Your task to perform on an android device: Show me productivity apps on the Play Store Image 0: 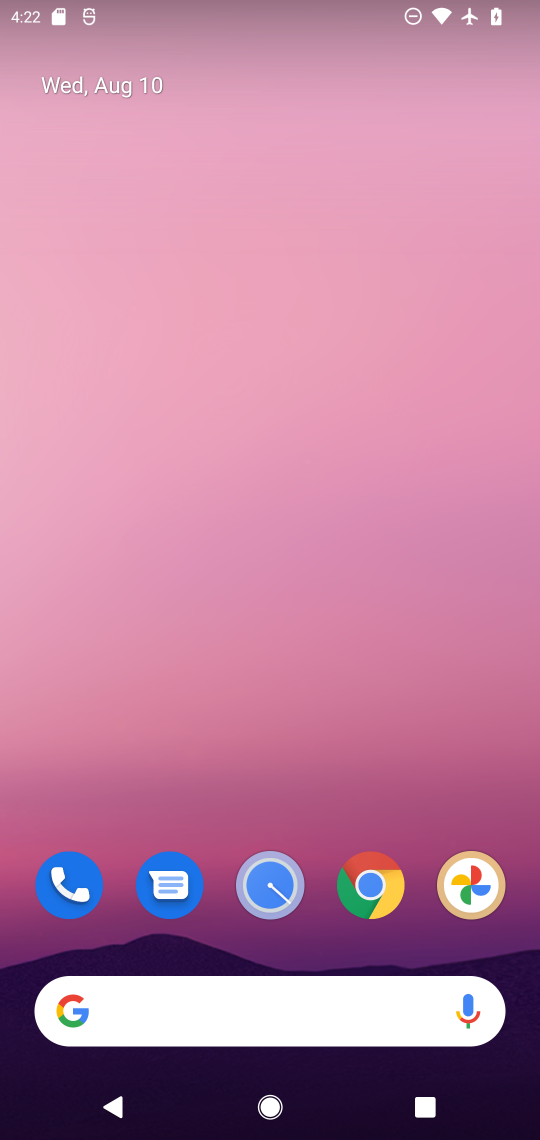
Step 0: drag from (316, 953) to (290, 196)
Your task to perform on an android device: Show me productivity apps on the Play Store Image 1: 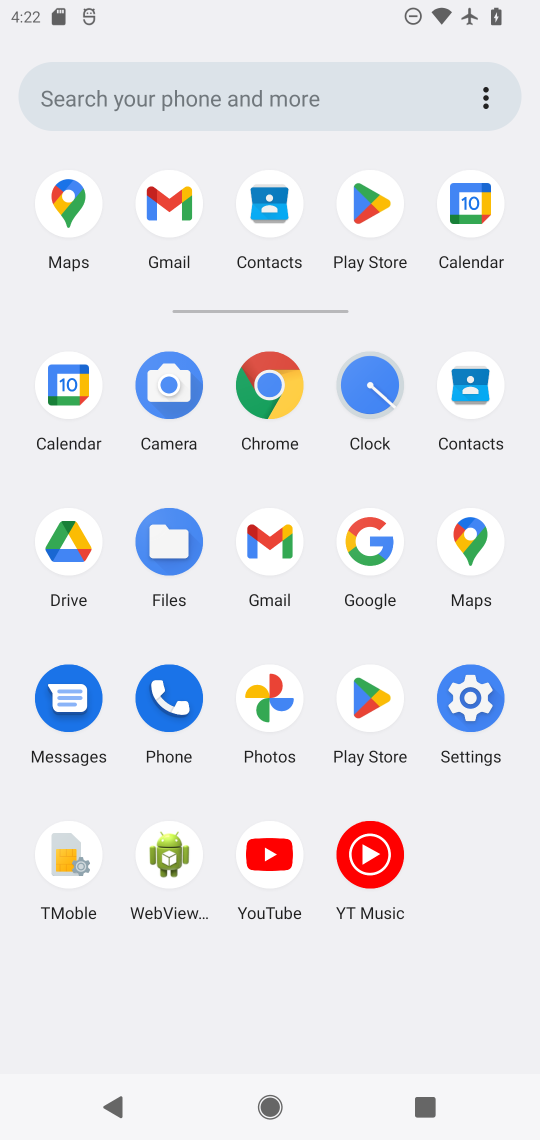
Step 1: click (369, 694)
Your task to perform on an android device: Show me productivity apps on the Play Store Image 2: 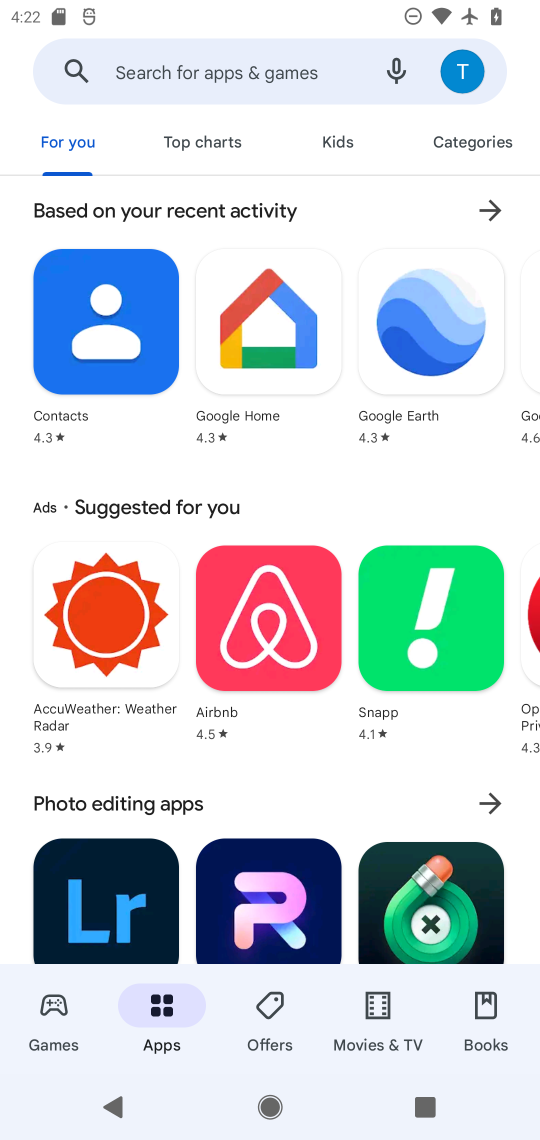
Step 2: task complete